Your task to perform on an android device: manage bookmarks in the chrome app Image 0: 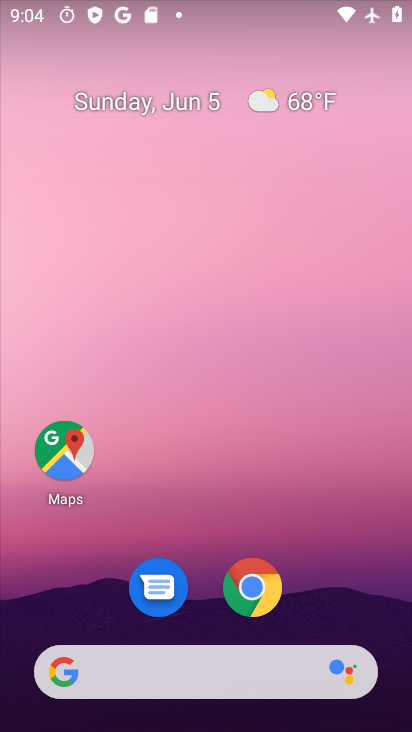
Step 0: click (260, 591)
Your task to perform on an android device: manage bookmarks in the chrome app Image 1: 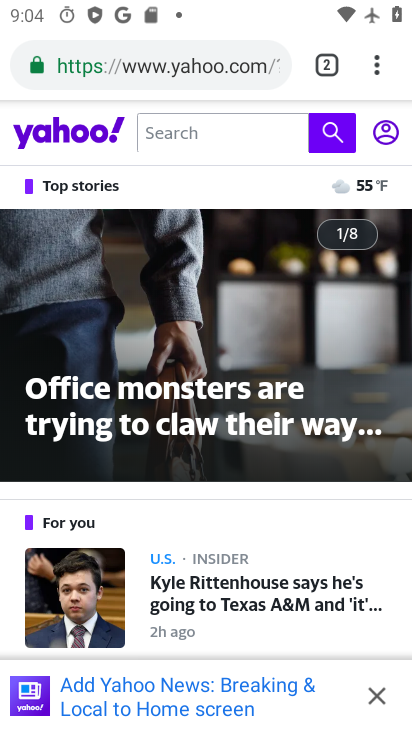
Step 1: click (373, 64)
Your task to perform on an android device: manage bookmarks in the chrome app Image 2: 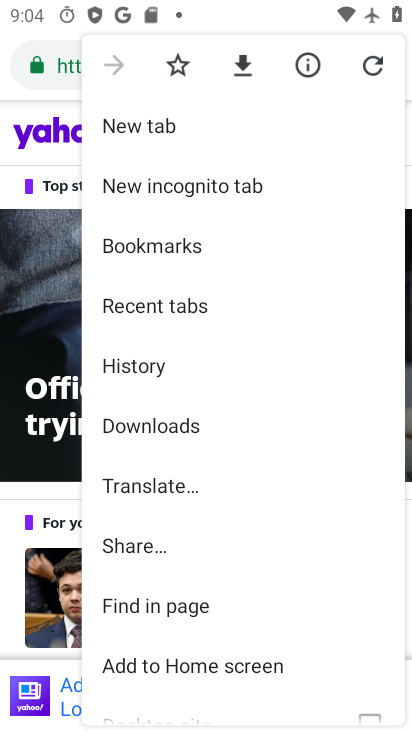
Step 2: click (154, 251)
Your task to perform on an android device: manage bookmarks in the chrome app Image 3: 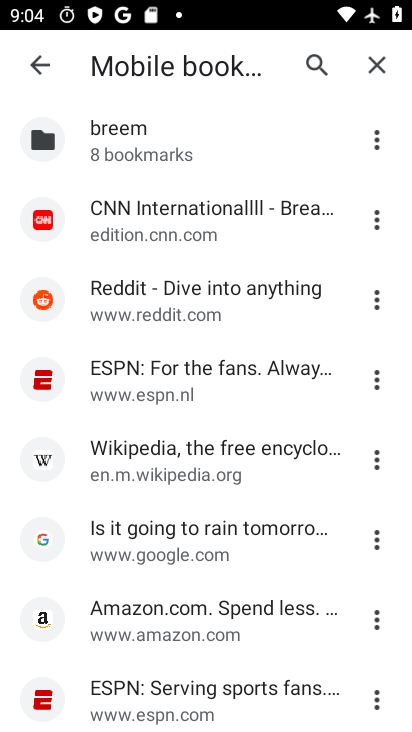
Step 3: click (379, 209)
Your task to perform on an android device: manage bookmarks in the chrome app Image 4: 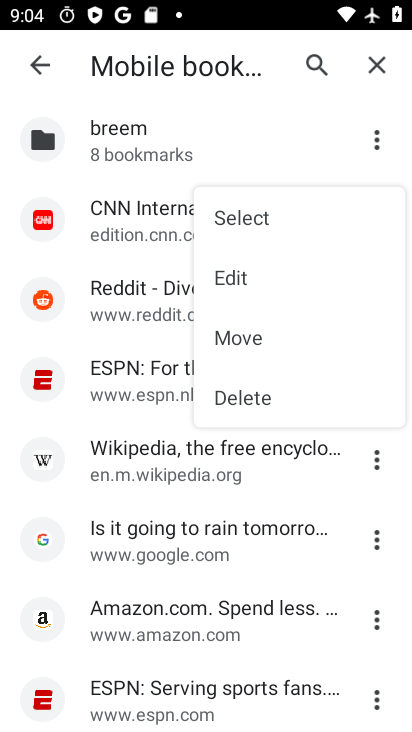
Step 4: click (268, 399)
Your task to perform on an android device: manage bookmarks in the chrome app Image 5: 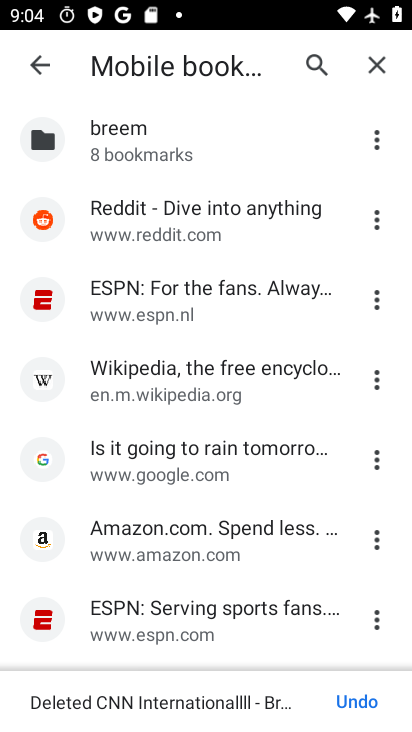
Step 5: click (373, 227)
Your task to perform on an android device: manage bookmarks in the chrome app Image 6: 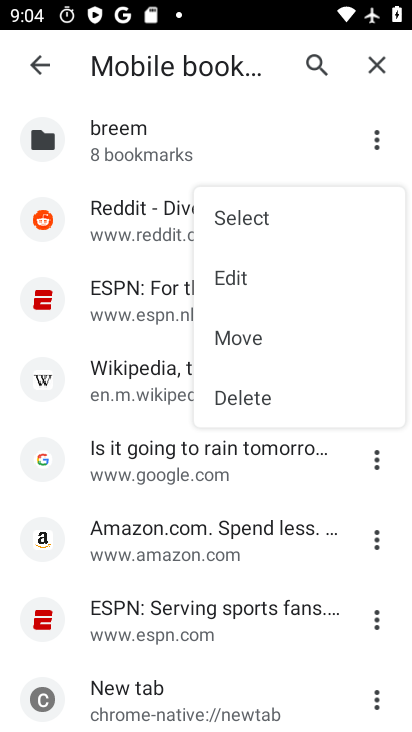
Step 6: click (285, 402)
Your task to perform on an android device: manage bookmarks in the chrome app Image 7: 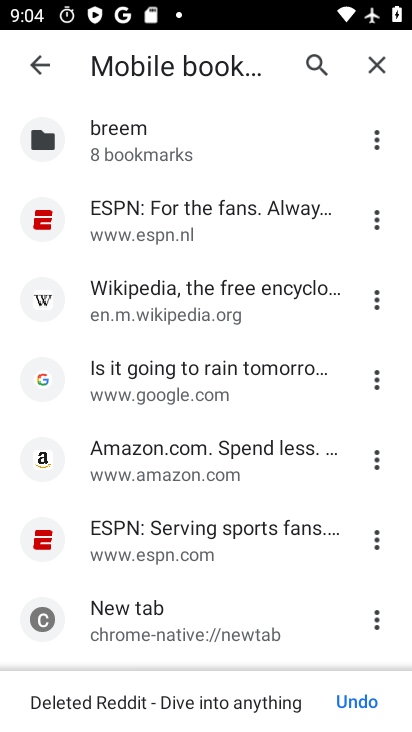
Step 7: task complete